Your task to perform on an android device: change alarm snooze length Image 0: 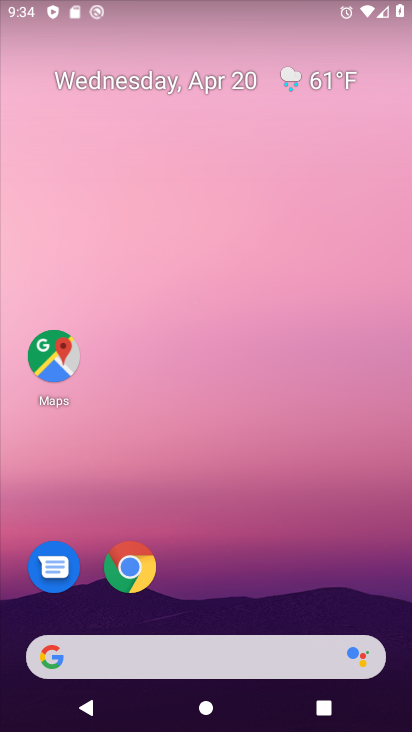
Step 0: drag from (224, 608) to (225, 108)
Your task to perform on an android device: change alarm snooze length Image 1: 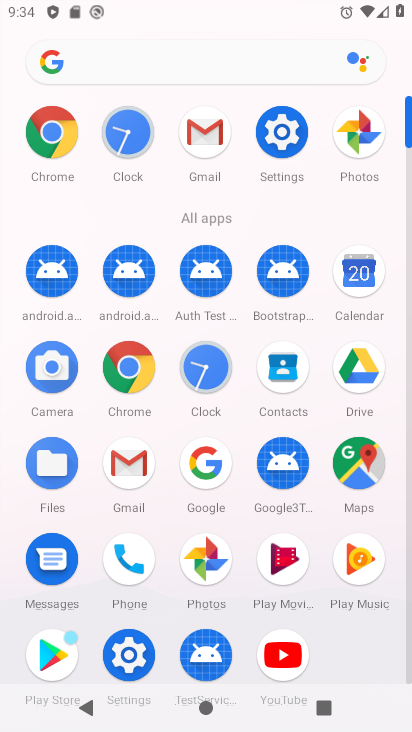
Step 1: click (206, 355)
Your task to perform on an android device: change alarm snooze length Image 2: 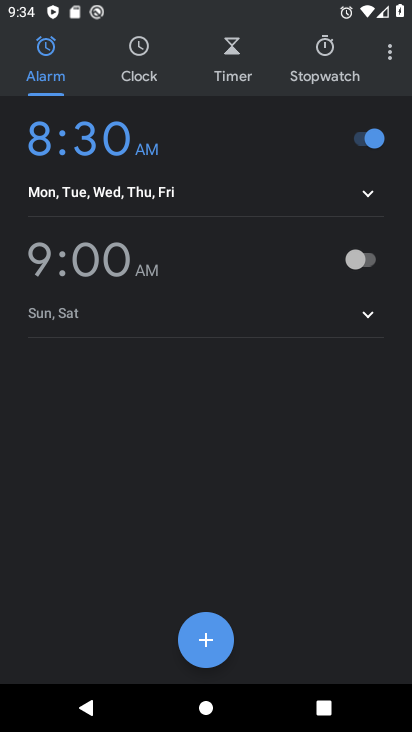
Step 2: click (388, 56)
Your task to perform on an android device: change alarm snooze length Image 3: 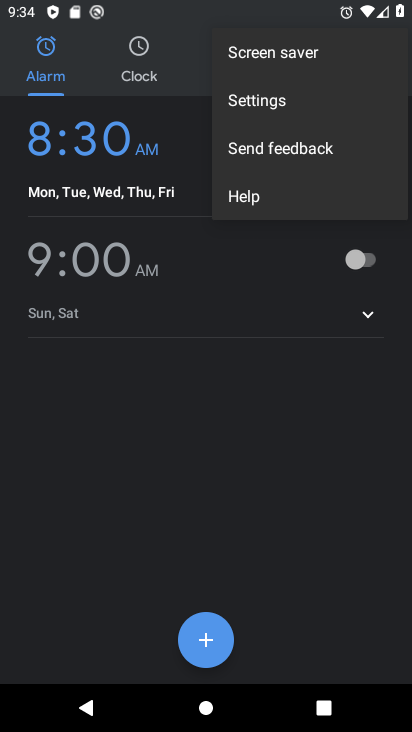
Step 3: click (284, 103)
Your task to perform on an android device: change alarm snooze length Image 4: 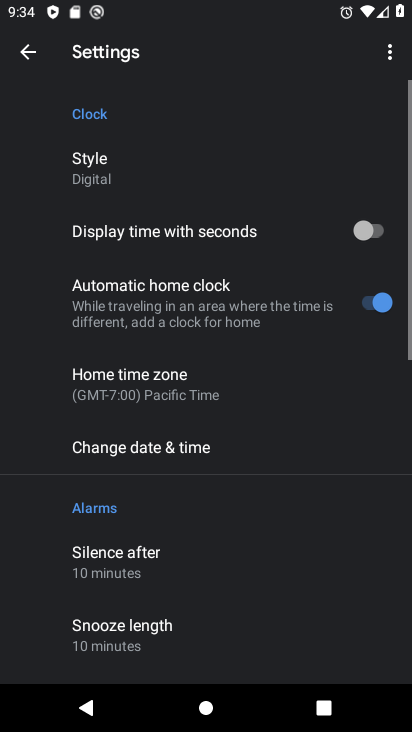
Step 4: drag from (185, 633) to (191, 221)
Your task to perform on an android device: change alarm snooze length Image 5: 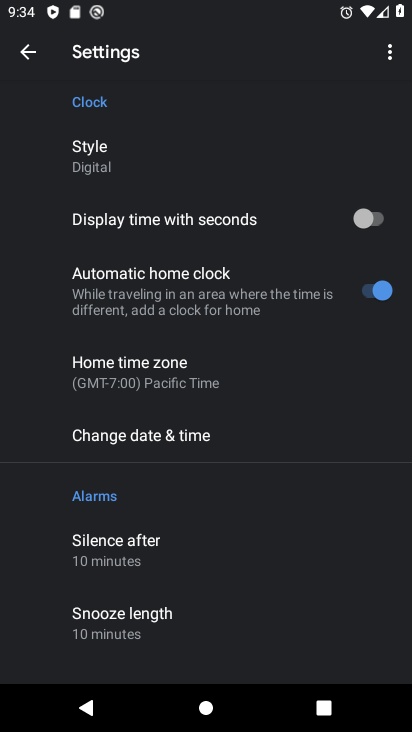
Step 5: click (139, 614)
Your task to perform on an android device: change alarm snooze length Image 6: 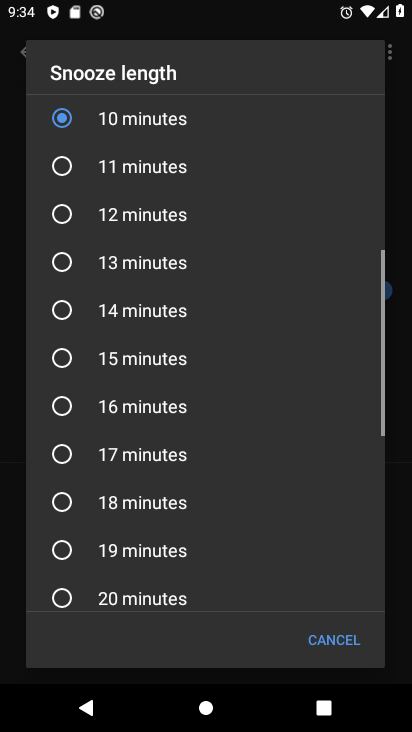
Step 6: click (159, 462)
Your task to perform on an android device: change alarm snooze length Image 7: 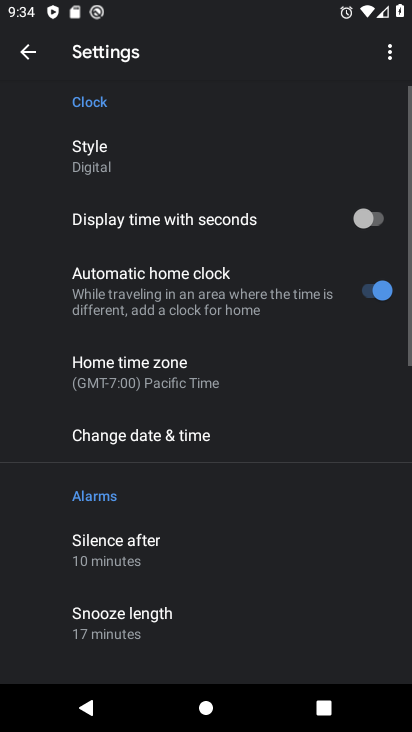
Step 7: task complete